Your task to perform on an android device: Show me the alarms in the clock app Image 0: 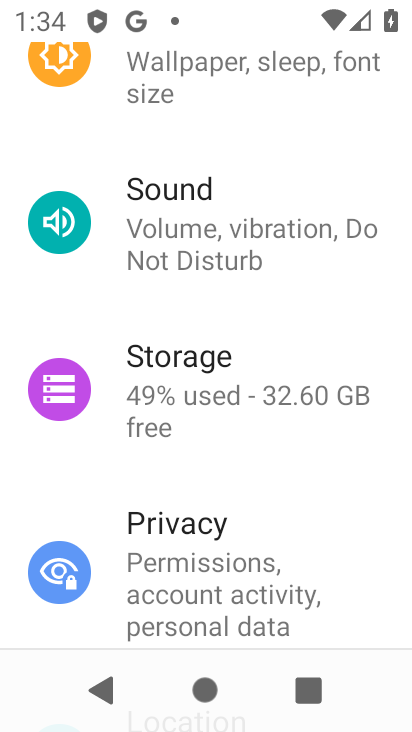
Step 0: press home button
Your task to perform on an android device: Show me the alarms in the clock app Image 1: 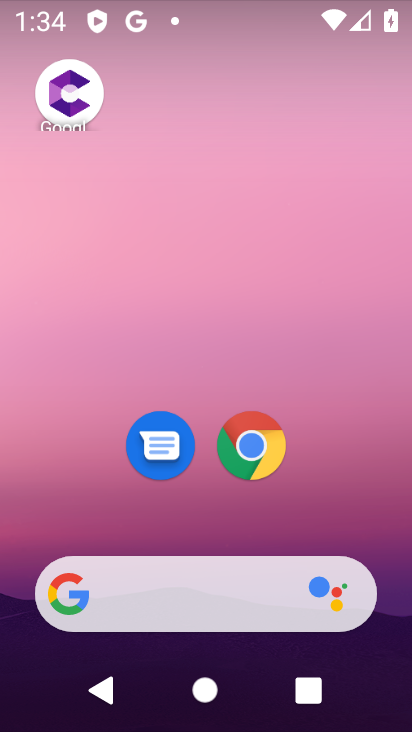
Step 1: drag from (328, 477) to (202, 52)
Your task to perform on an android device: Show me the alarms in the clock app Image 2: 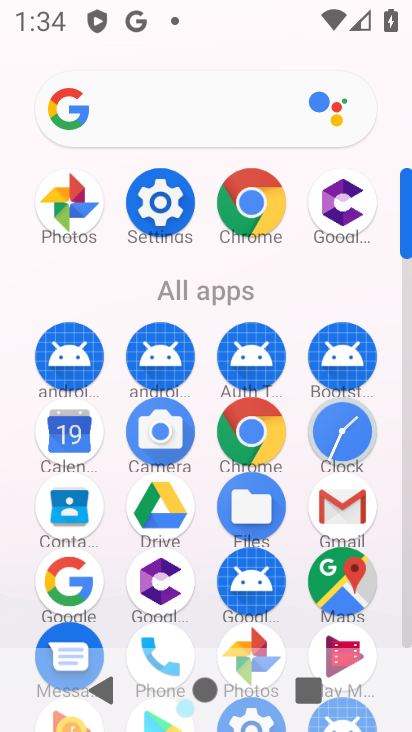
Step 2: click (339, 434)
Your task to perform on an android device: Show me the alarms in the clock app Image 3: 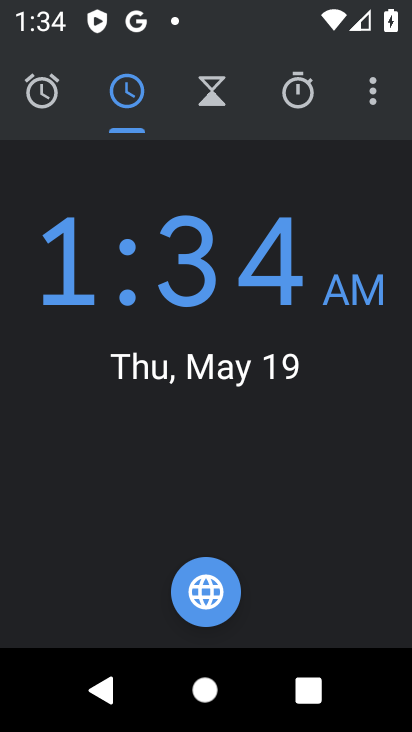
Step 3: click (38, 94)
Your task to perform on an android device: Show me the alarms in the clock app Image 4: 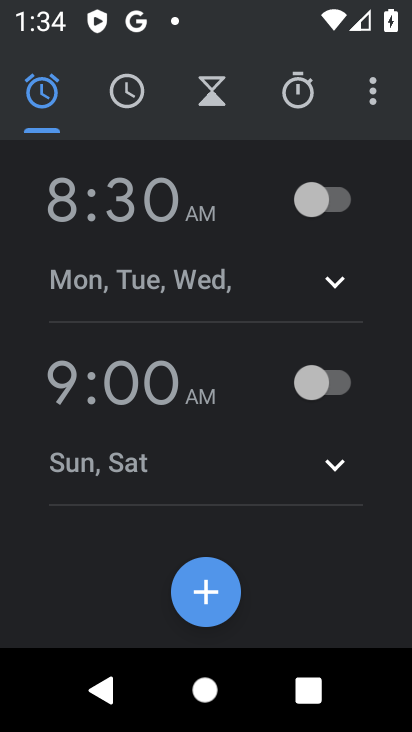
Step 4: task complete